Your task to perform on an android device: Open network settings Image 0: 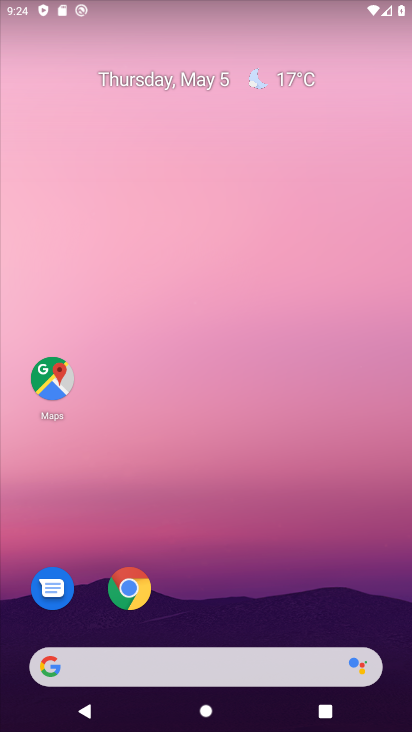
Step 0: drag from (259, 606) to (240, 153)
Your task to perform on an android device: Open network settings Image 1: 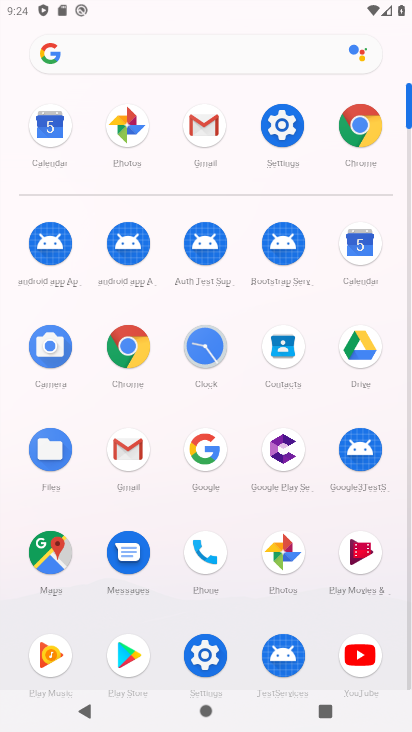
Step 1: click (292, 129)
Your task to perform on an android device: Open network settings Image 2: 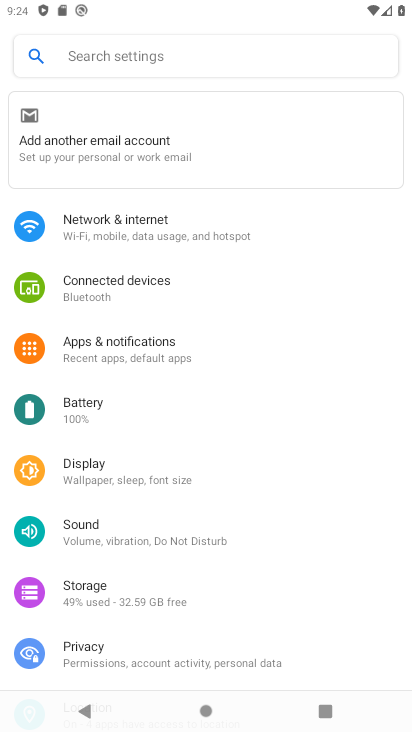
Step 2: click (137, 219)
Your task to perform on an android device: Open network settings Image 3: 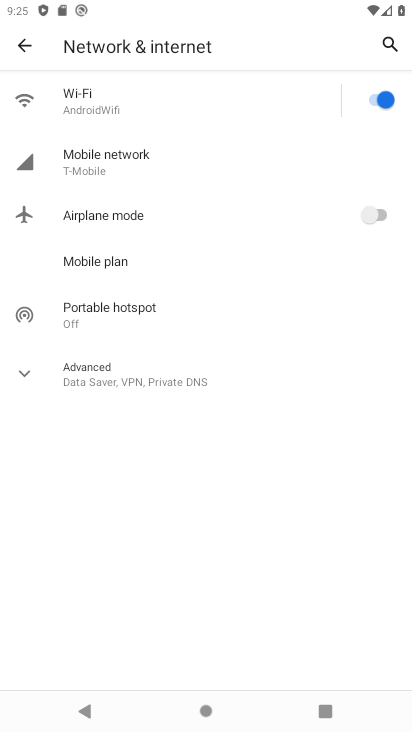
Step 3: task complete